Your task to perform on an android device: Search for sushi restaurants on Maps Image 0: 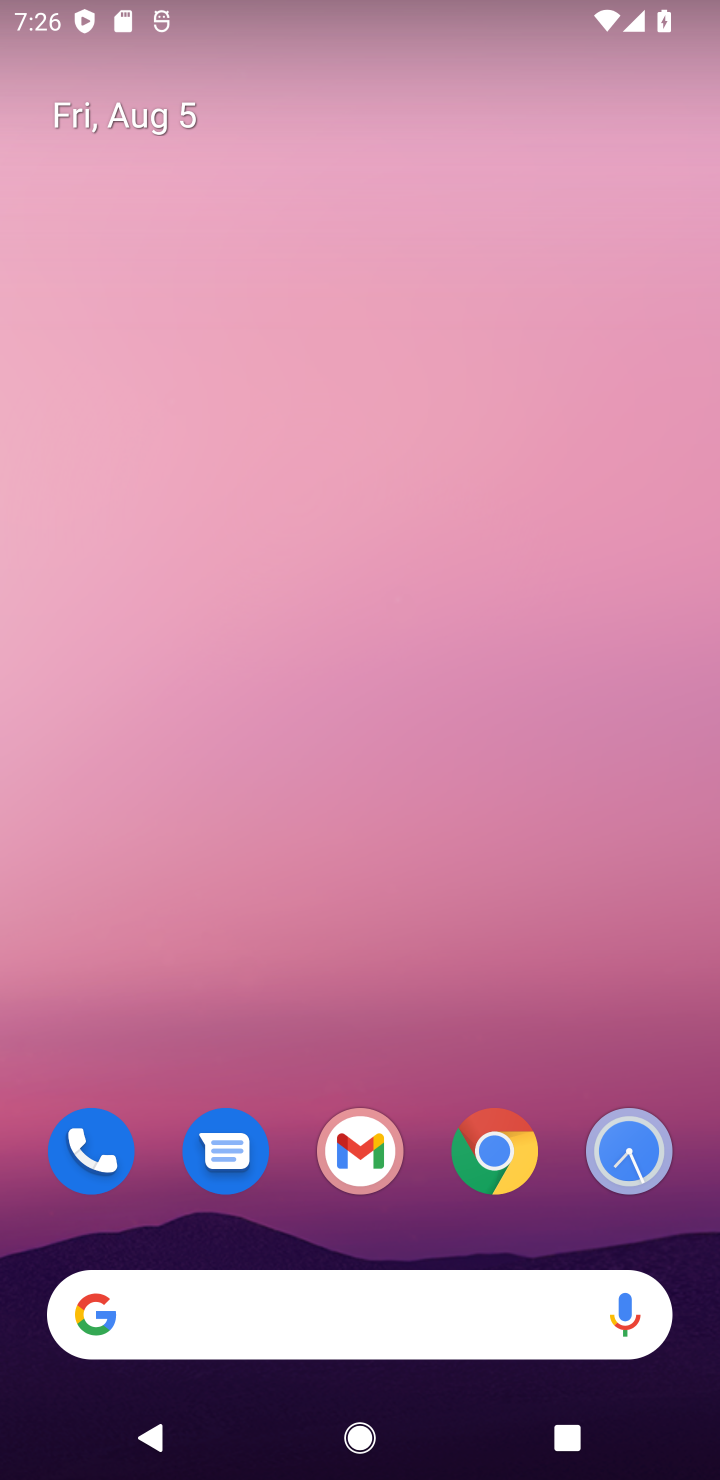
Step 0: drag from (409, 1267) to (354, 73)
Your task to perform on an android device: Search for sushi restaurants on Maps Image 1: 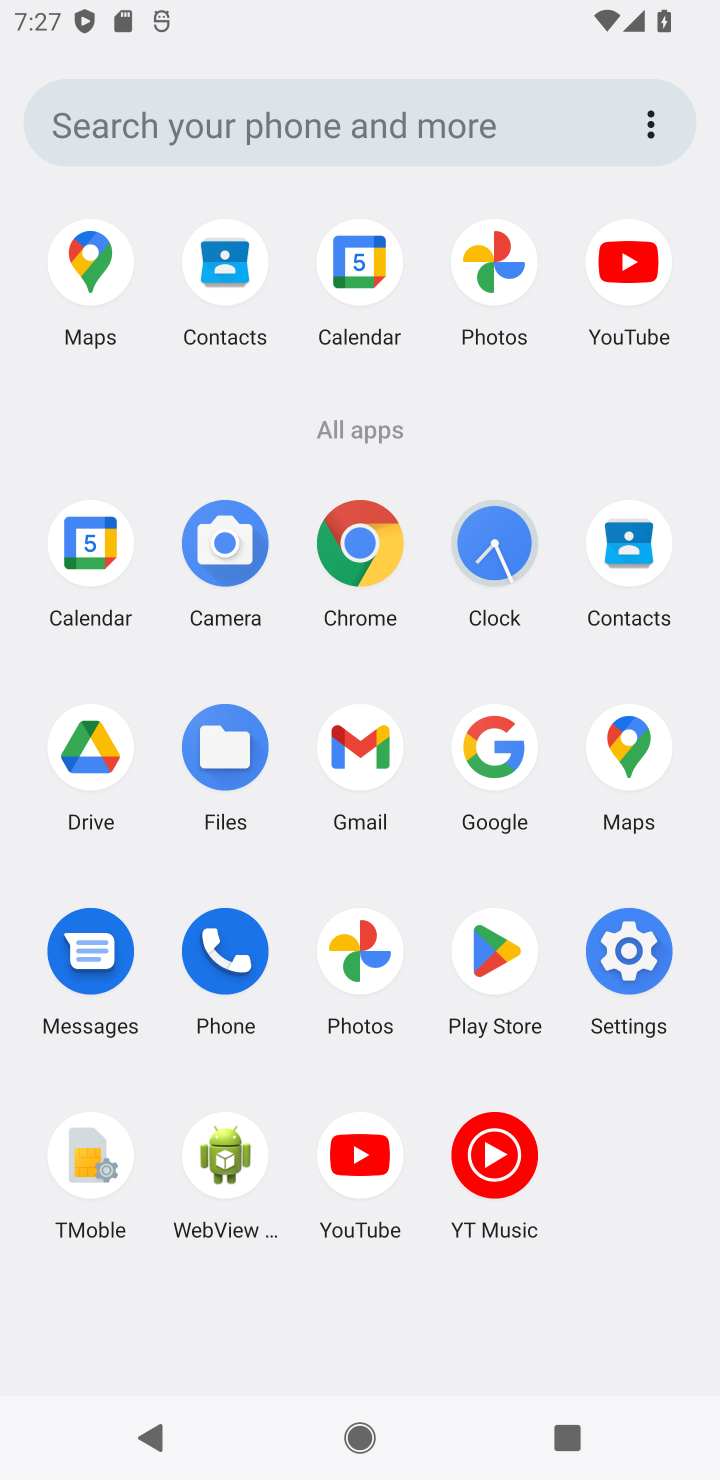
Step 1: click (650, 777)
Your task to perform on an android device: Search for sushi restaurants on Maps Image 2: 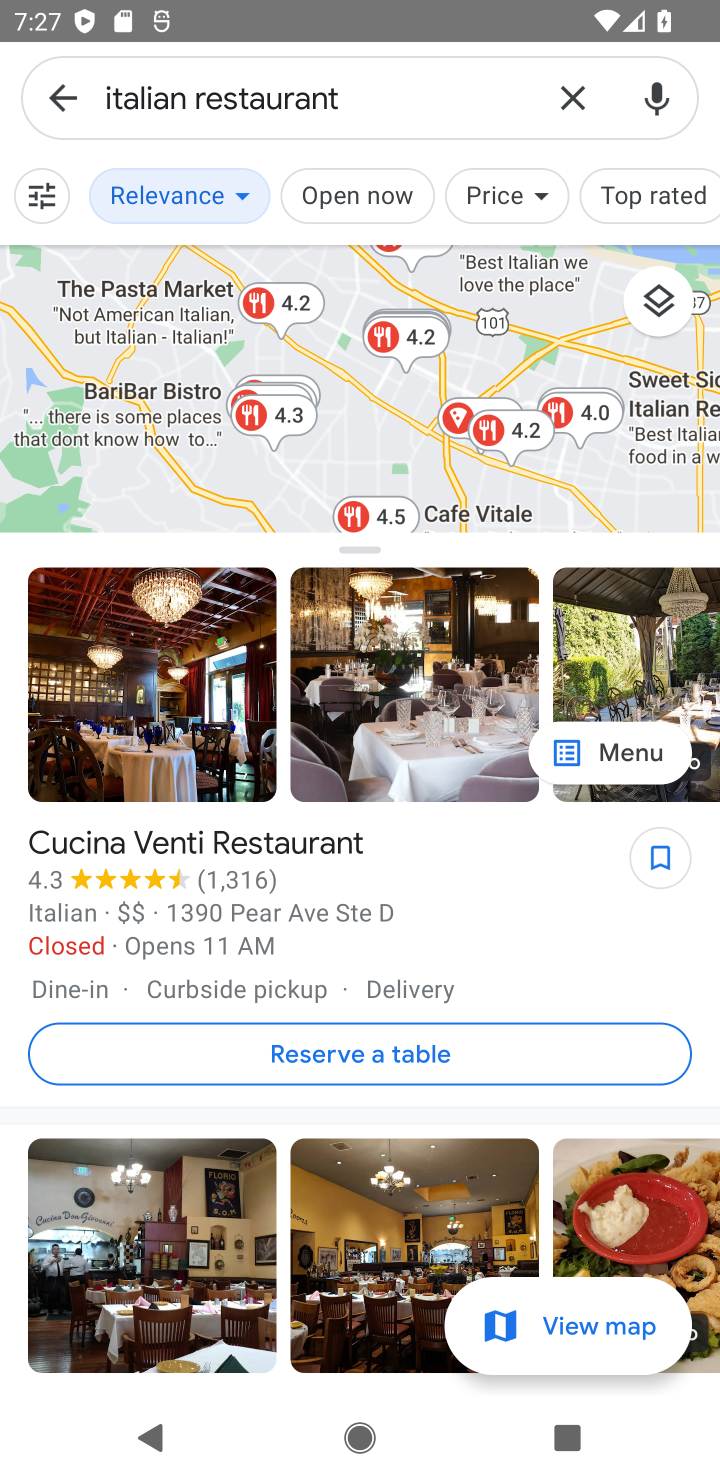
Step 2: click (565, 93)
Your task to perform on an android device: Search for sushi restaurants on Maps Image 3: 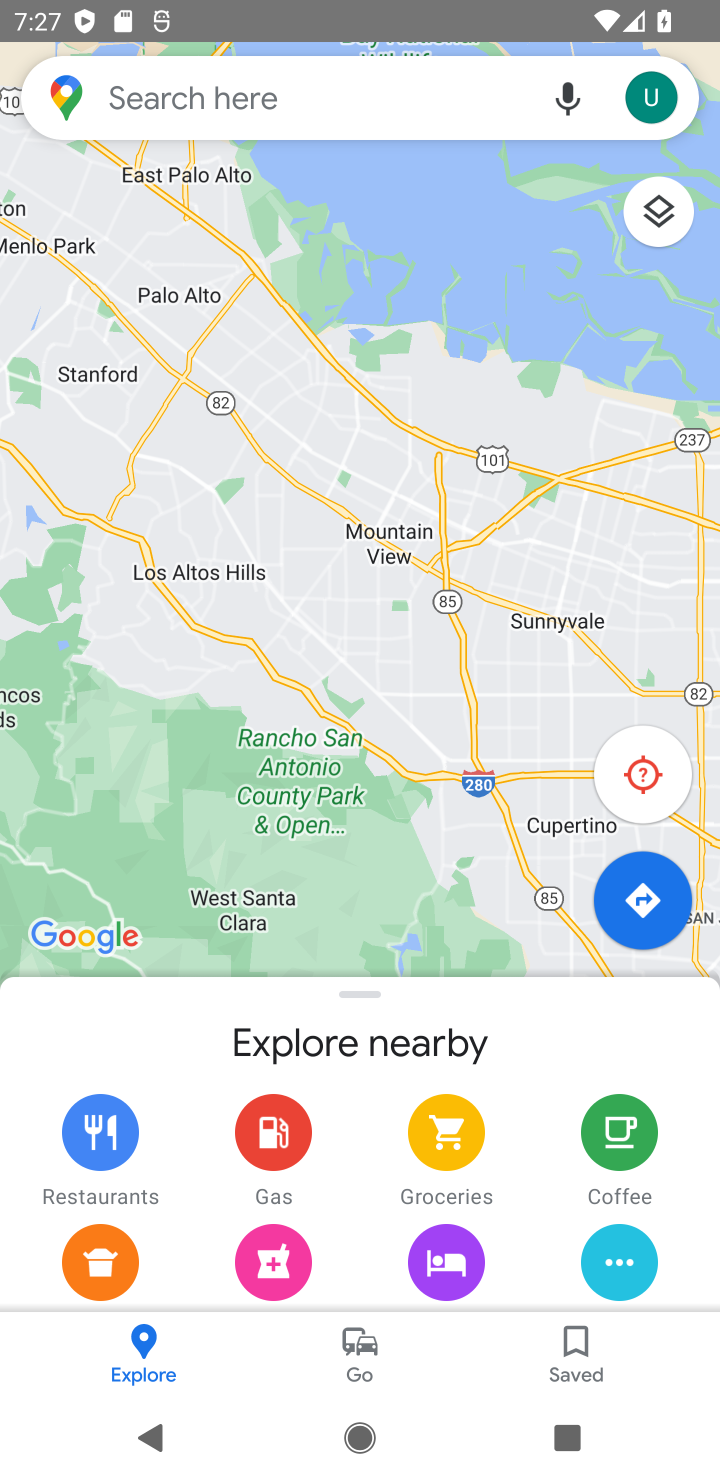
Step 3: click (276, 91)
Your task to perform on an android device: Search for sushi restaurants on Maps Image 4: 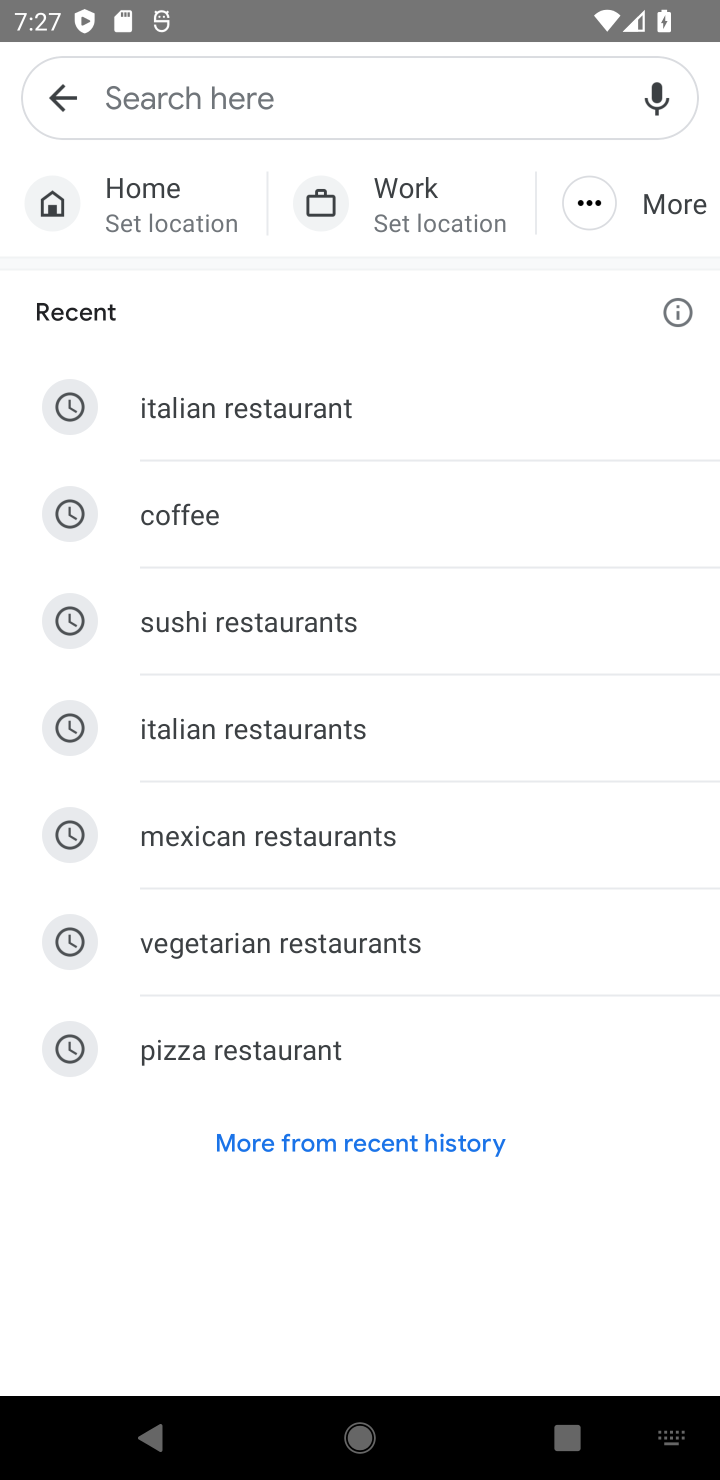
Step 4: click (188, 646)
Your task to perform on an android device: Search for sushi restaurants on Maps Image 5: 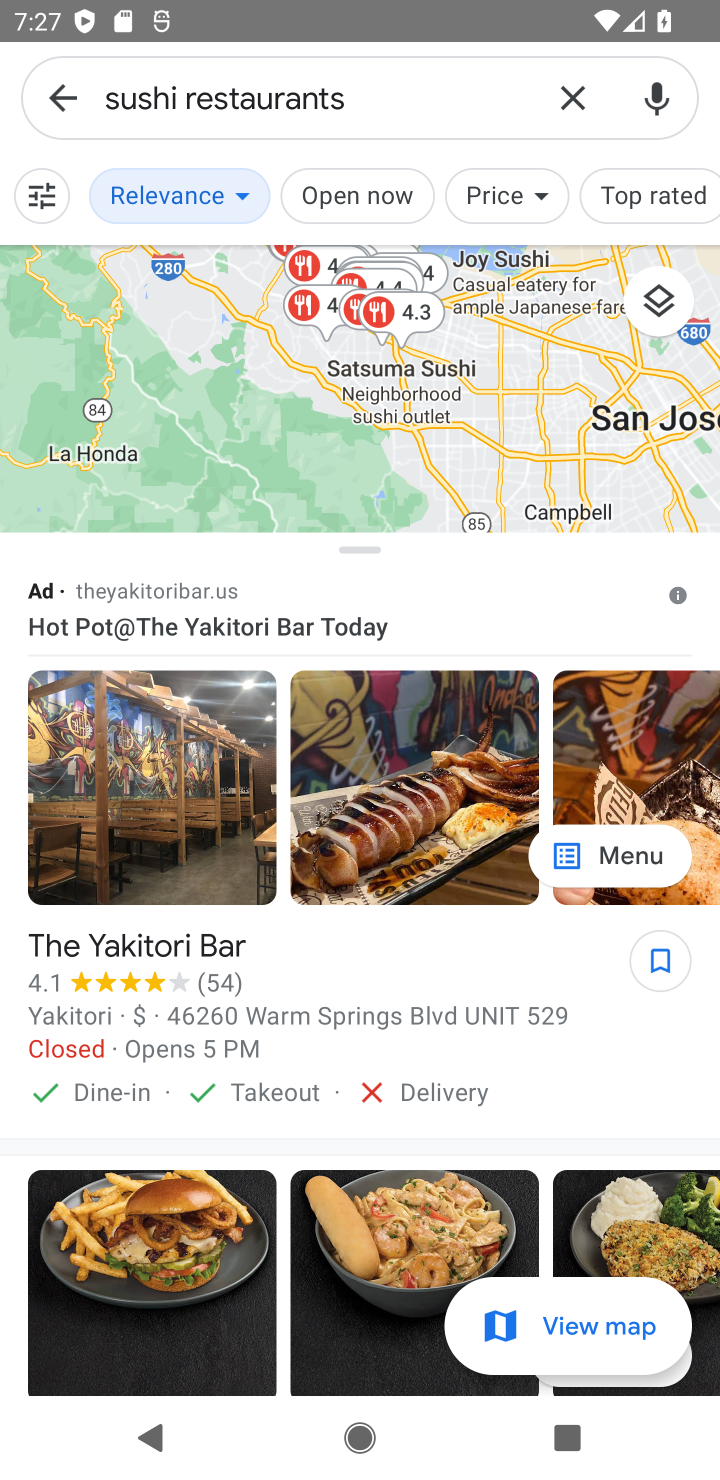
Step 5: task complete